Your task to perform on an android device: clear all cookies in the chrome app Image 0: 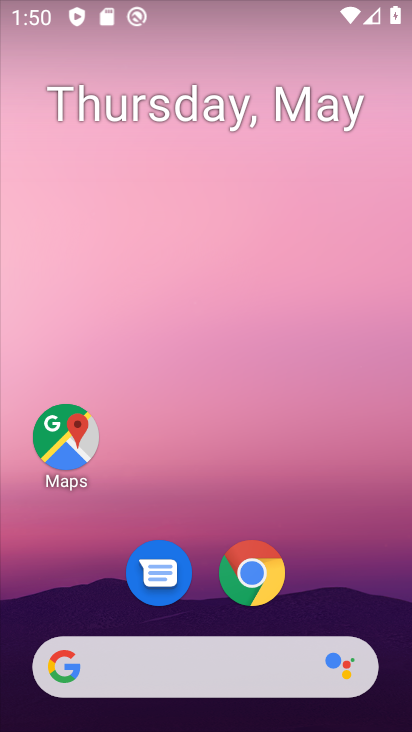
Step 0: click (244, 585)
Your task to perform on an android device: clear all cookies in the chrome app Image 1: 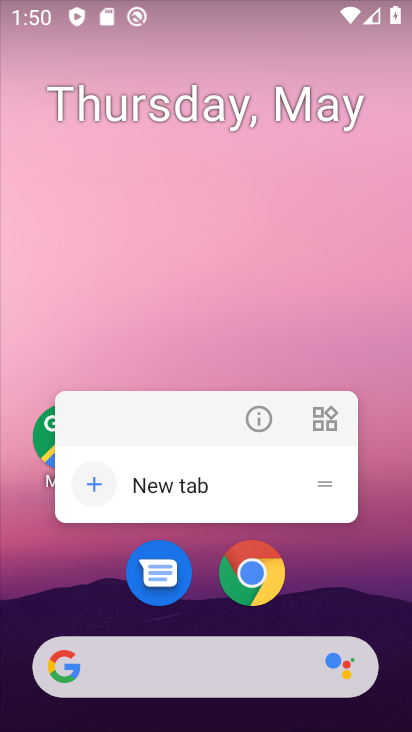
Step 1: click (257, 585)
Your task to perform on an android device: clear all cookies in the chrome app Image 2: 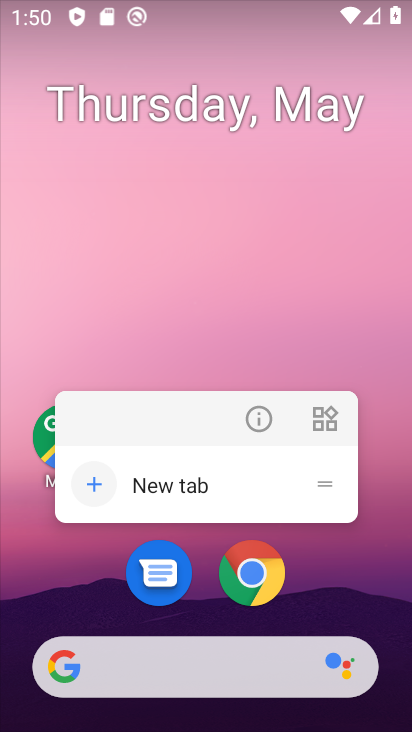
Step 2: click (267, 585)
Your task to perform on an android device: clear all cookies in the chrome app Image 3: 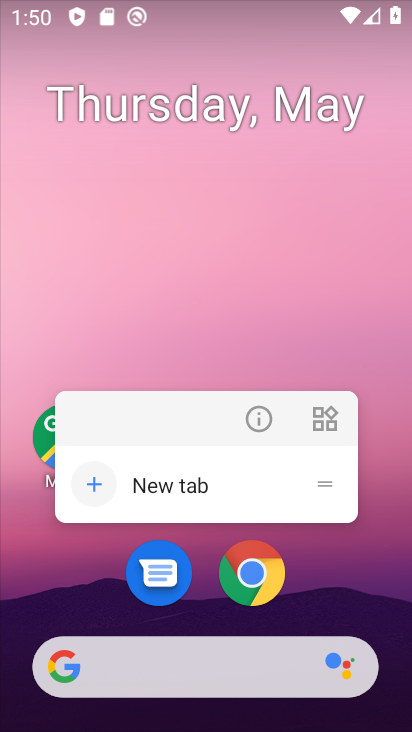
Step 3: click (263, 591)
Your task to perform on an android device: clear all cookies in the chrome app Image 4: 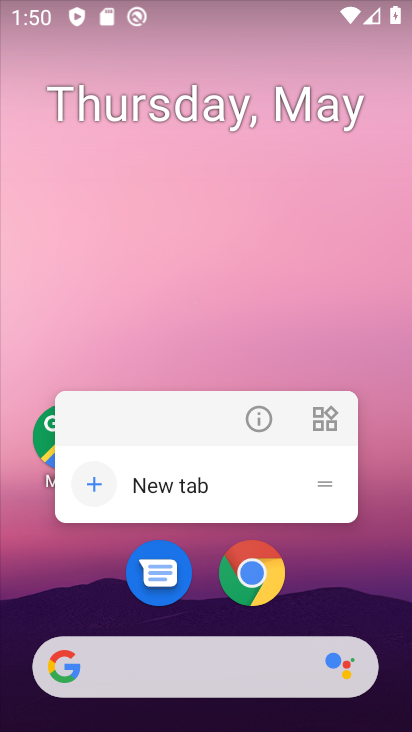
Step 4: click (269, 586)
Your task to perform on an android device: clear all cookies in the chrome app Image 5: 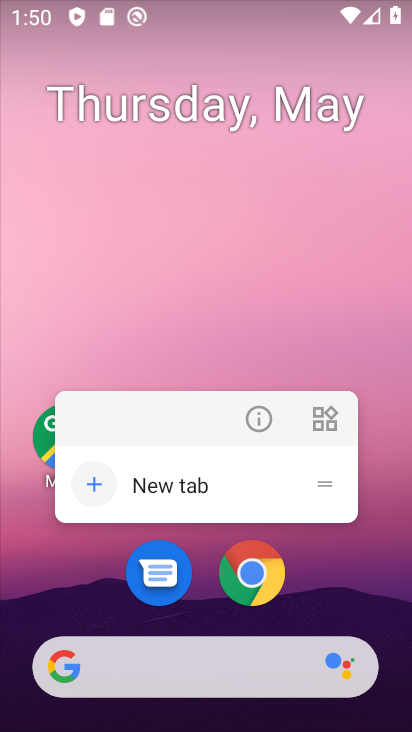
Step 5: click (266, 569)
Your task to perform on an android device: clear all cookies in the chrome app Image 6: 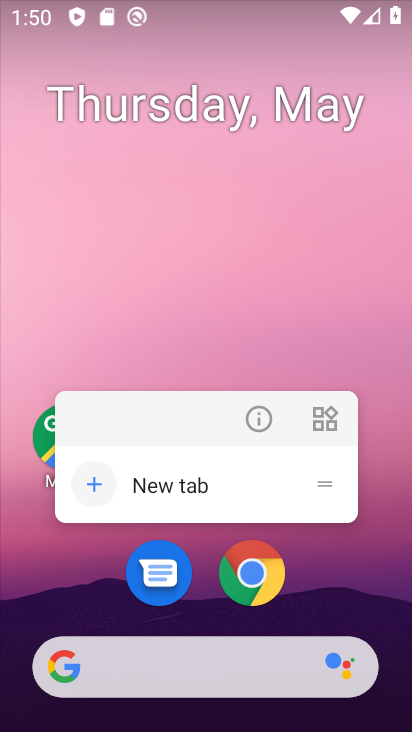
Step 6: click (258, 585)
Your task to perform on an android device: clear all cookies in the chrome app Image 7: 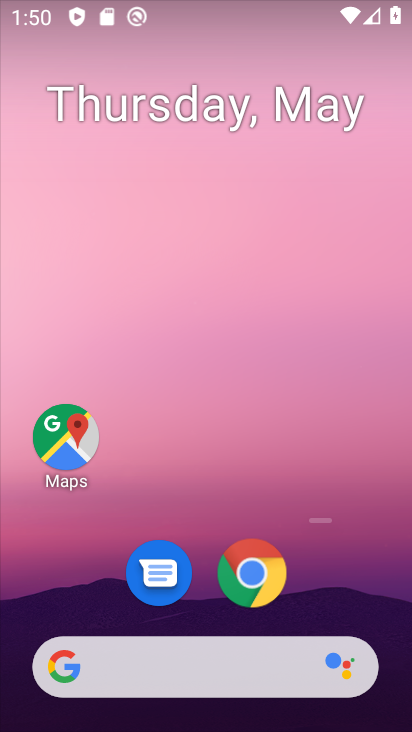
Step 7: click (279, 586)
Your task to perform on an android device: clear all cookies in the chrome app Image 8: 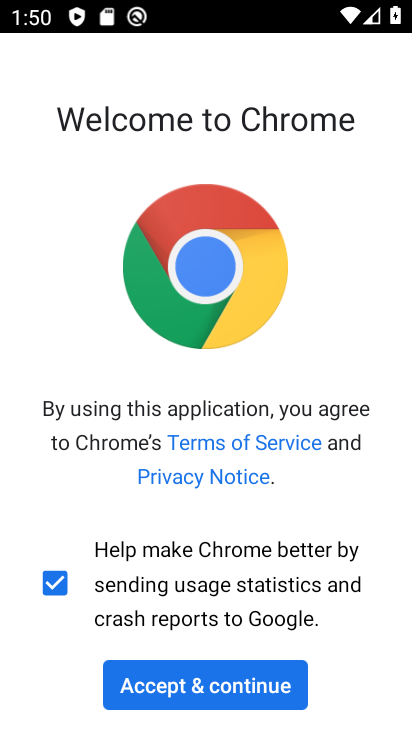
Step 8: click (247, 679)
Your task to perform on an android device: clear all cookies in the chrome app Image 9: 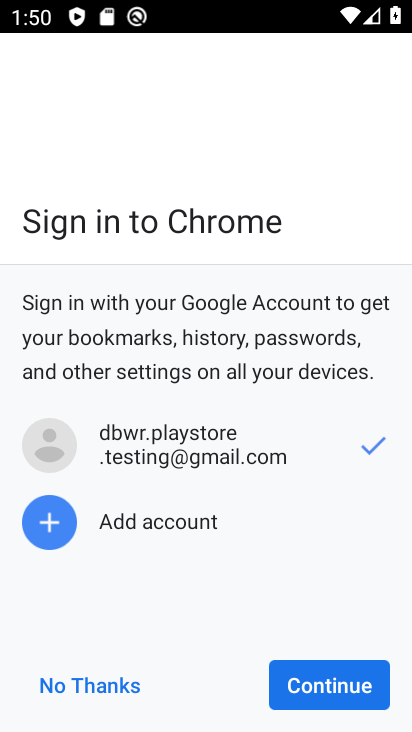
Step 9: click (382, 680)
Your task to perform on an android device: clear all cookies in the chrome app Image 10: 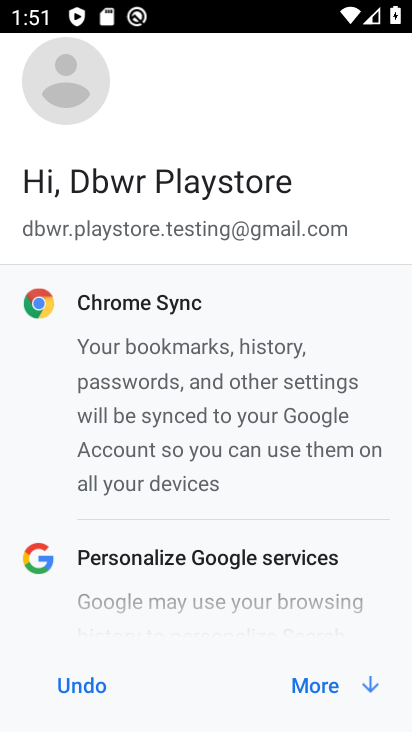
Step 10: click (366, 696)
Your task to perform on an android device: clear all cookies in the chrome app Image 11: 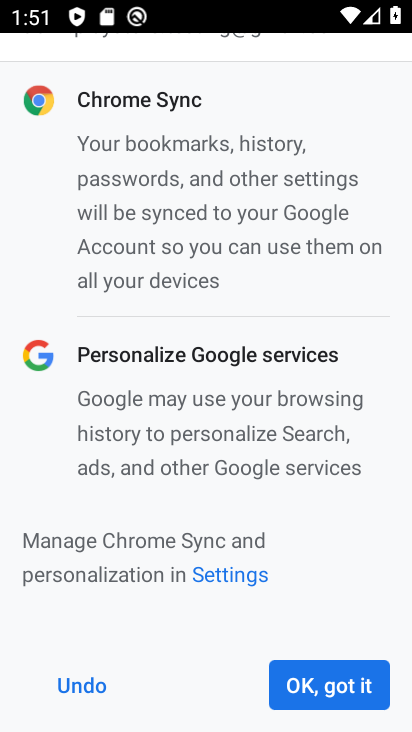
Step 11: click (359, 682)
Your task to perform on an android device: clear all cookies in the chrome app Image 12: 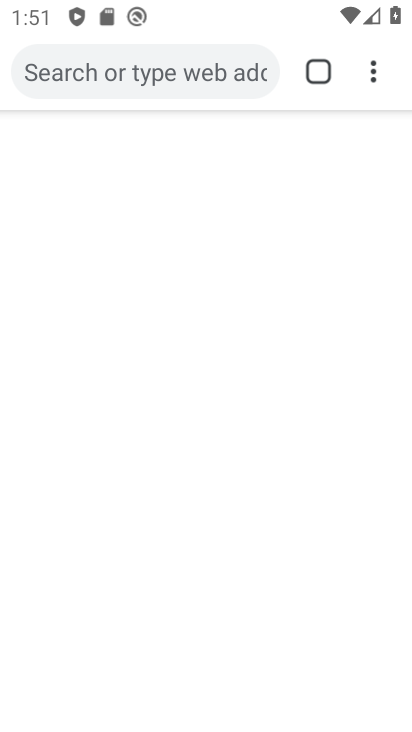
Step 12: click (359, 682)
Your task to perform on an android device: clear all cookies in the chrome app Image 13: 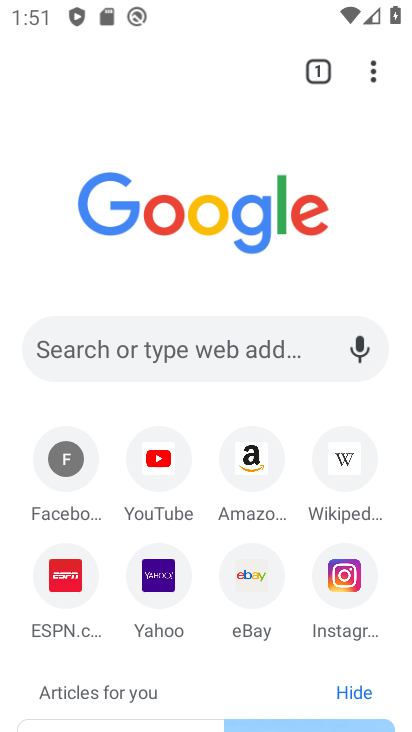
Step 13: drag from (398, 83) to (258, 588)
Your task to perform on an android device: clear all cookies in the chrome app Image 14: 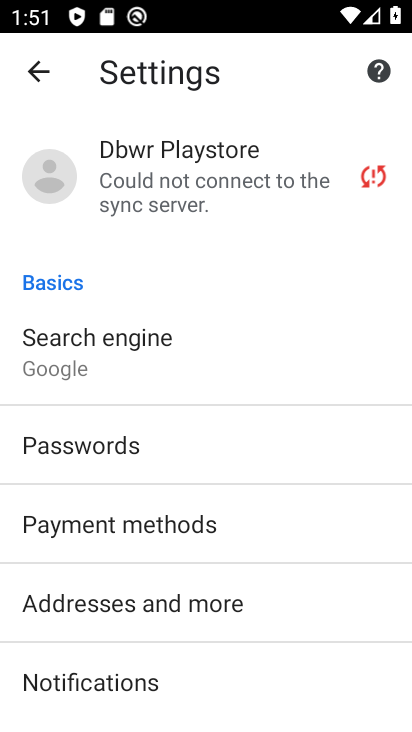
Step 14: drag from (204, 631) to (285, 323)
Your task to perform on an android device: clear all cookies in the chrome app Image 15: 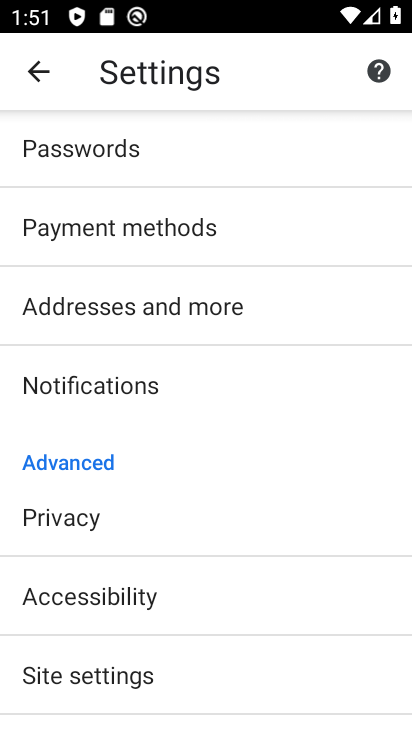
Step 15: drag from (226, 633) to (307, 393)
Your task to perform on an android device: clear all cookies in the chrome app Image 16: 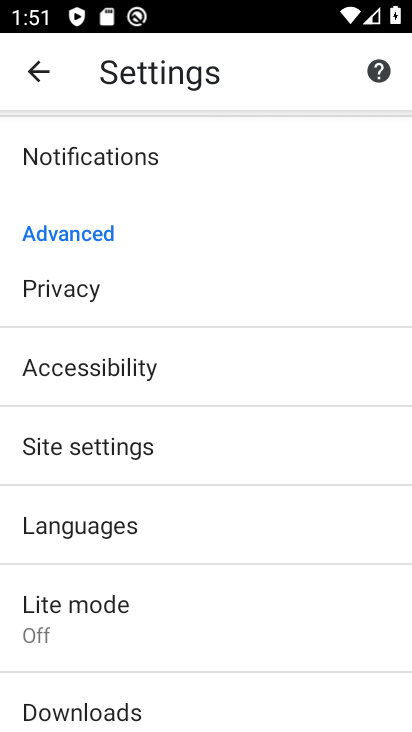
Step 16: drag from (225, 656) to (247, 420)
Your task to perform on an android device: clear all cookies in the chrome app Image 17: 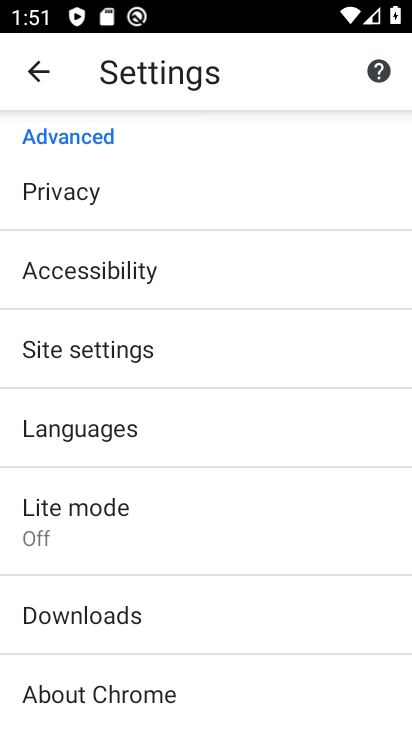
Step 17: click (174, 206)
Your task to perform on an android device: clear all cookies in the chrome app Image 18: 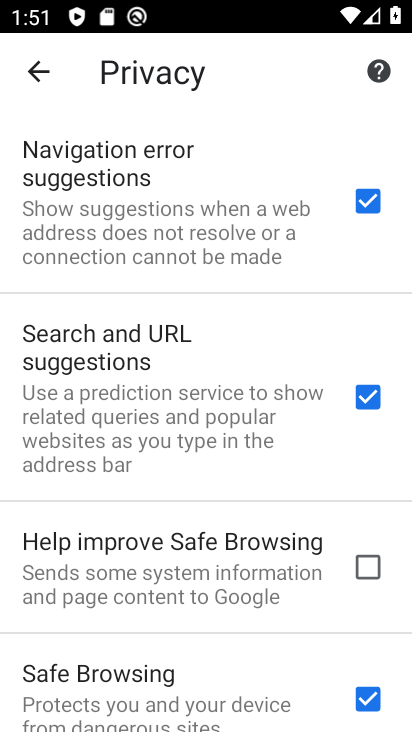
Step 18: drag from (178, 687) to (295, 243)
Your task to perform on an android device: clear all cookies in the chrome app Image 19: 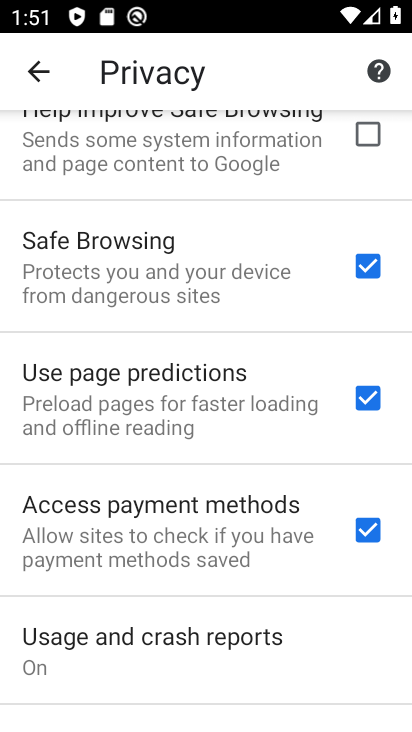
Step 19: drag from (195, 693) to (282, 383)
Your task to perform on an android device: clear all cookies in the chrome app Image 20: 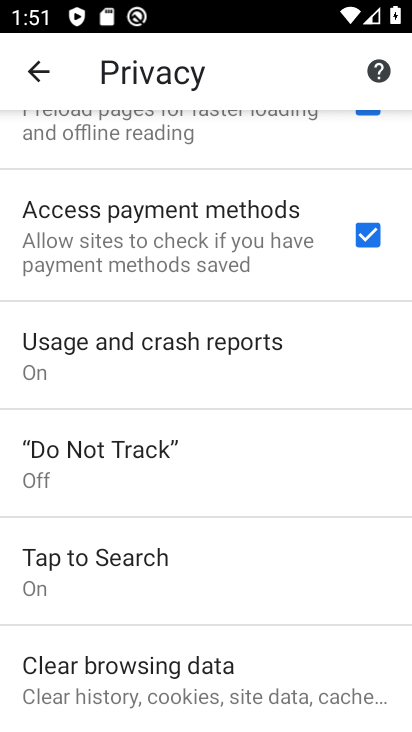
Step 20: click (195, 699)
Your task to perform on an android device: clear all cookies in the chrome app Image 21: 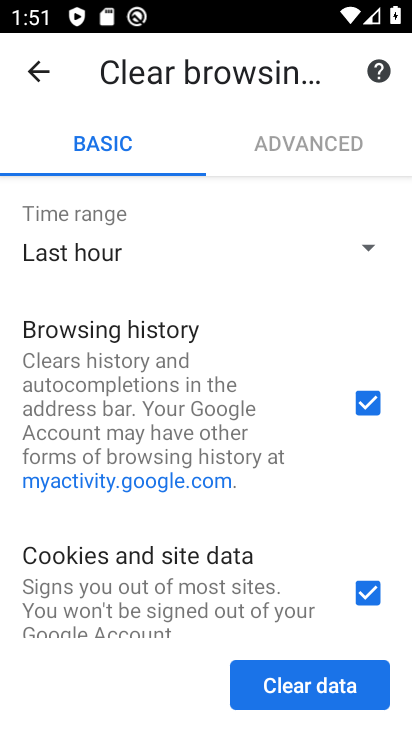
Step 21: click (358, 402)
Your task to perform on an android device: clear all cookies in the chrome app Image 22: 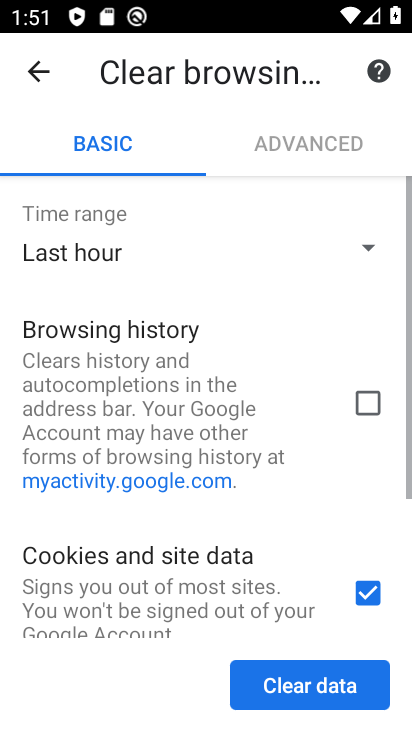
Step 22: drag from (171, 547) to (303, 143)
Your task to perform on an android device: clear all cookies in the chrome app Image 23: 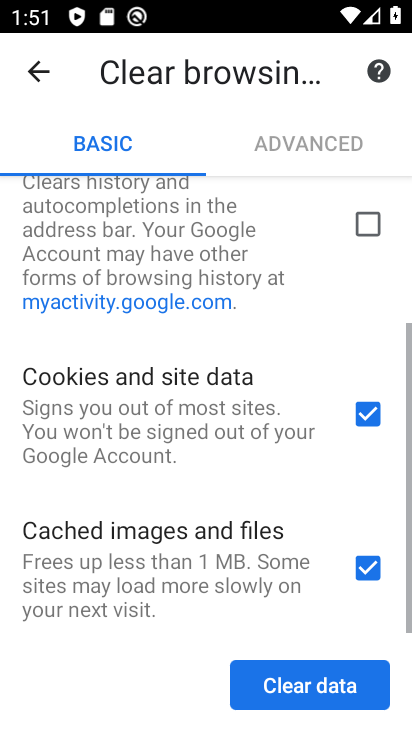
Step 23: click (361, 566)
Your task to perform on an android device: clear all cookies in the chrome app Image 24: 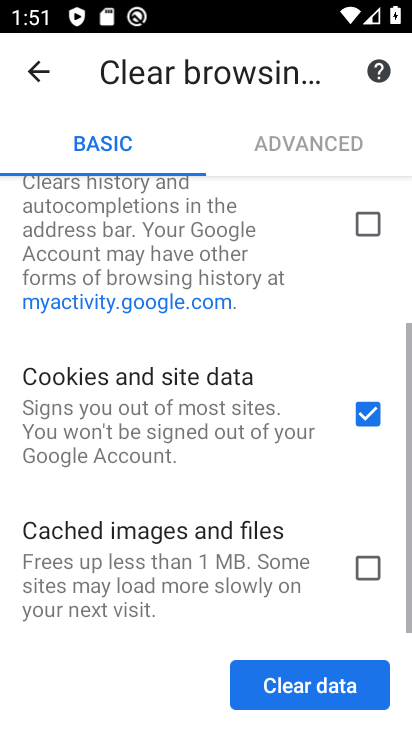
Step 24: click (343, 678)
Your task to perform on an android device: clear all cookies in the chrome app Image 25: 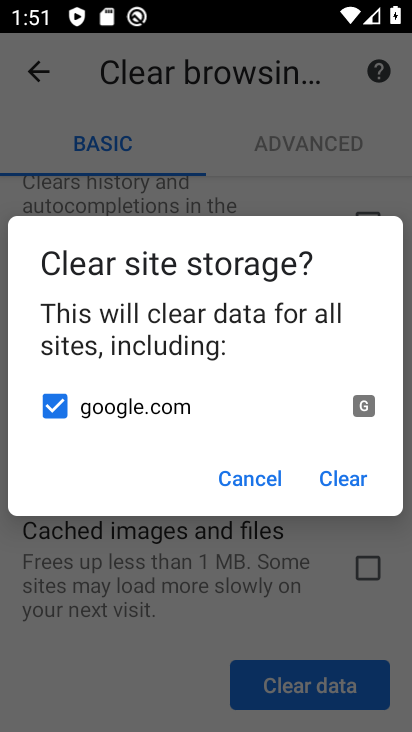
Step 25: click (346, 487)
Your task to perform on an android device: clear all cookies in the chrome app Image 26: 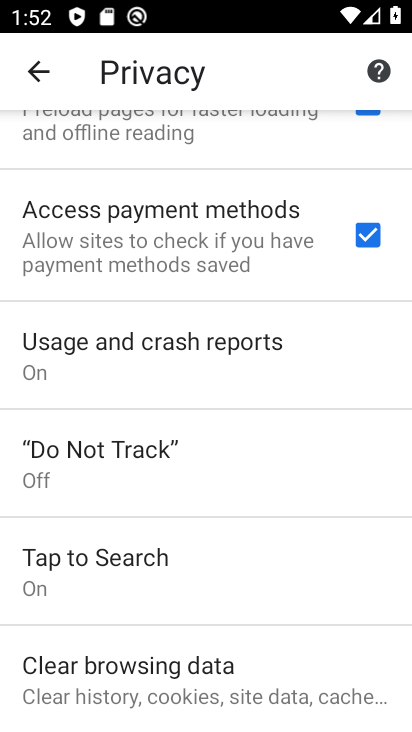
Step 26: task complete